Your task to perform on an android device: open chrome privacy settings Image 0: 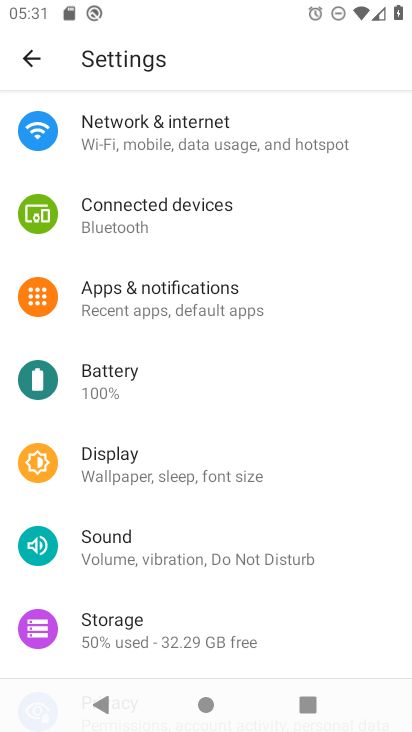
Step 0: press home button
Your task to perform on an android device: open chrome privacy settings Image 1: 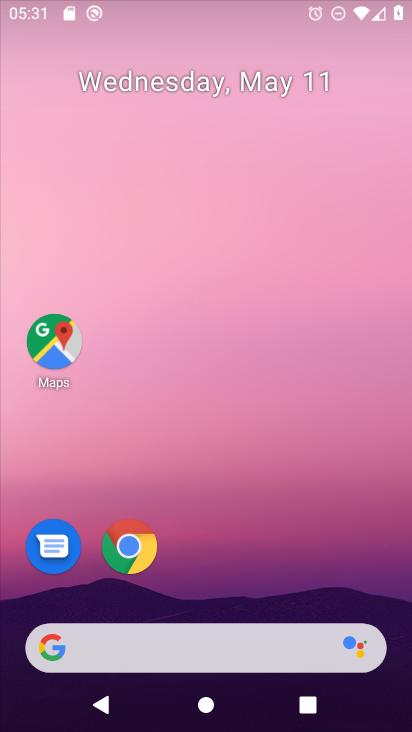
Step 1: drag from (336, 670) to (332, 65)
Your task to perform on an android device: open chrome privacy settings Image 2: 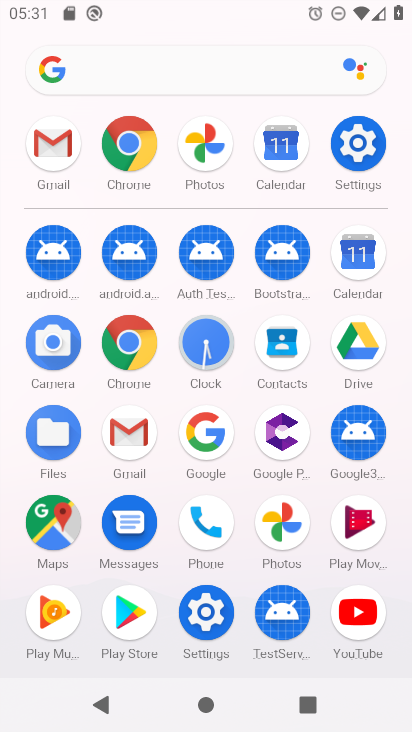
Step 2: click (138, 342)
Your task to perform on an android device: open chrome privacy settings Image 3: 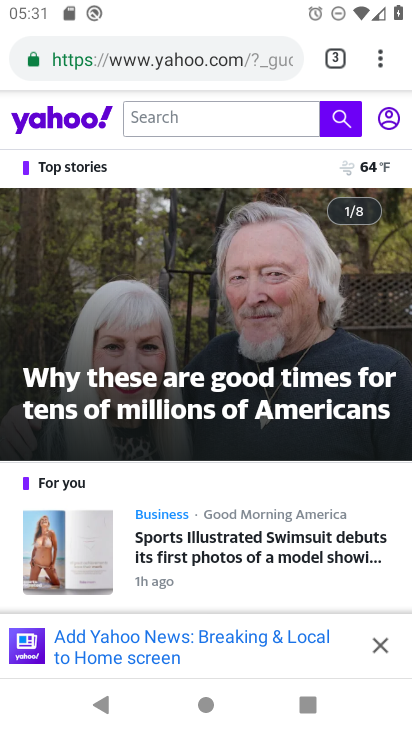
Step 3: drag from (382, 56) to (298, 667)
Your task to perform on an android device: open chrome privacy settings Image 4: 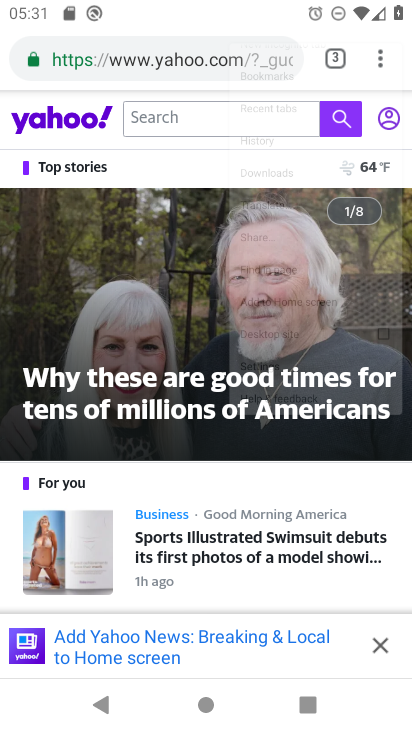
Step 4: click (245, 578)
Your task to perform on an android device: open chrome privacy settings Image 5: 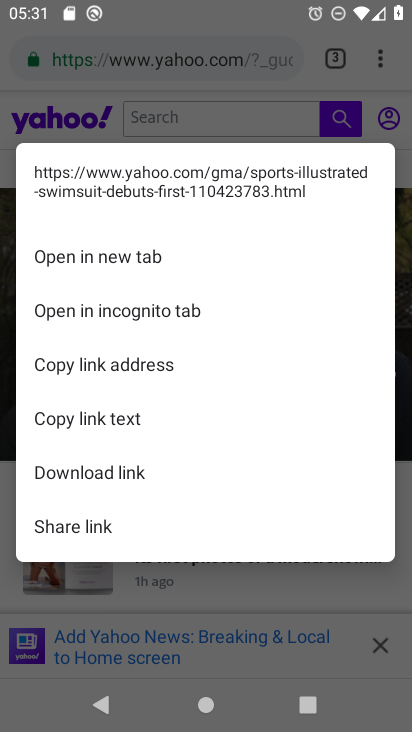
Step 5: press back button
Your task to perform on an android device: open chrome privacy settings Image 6: 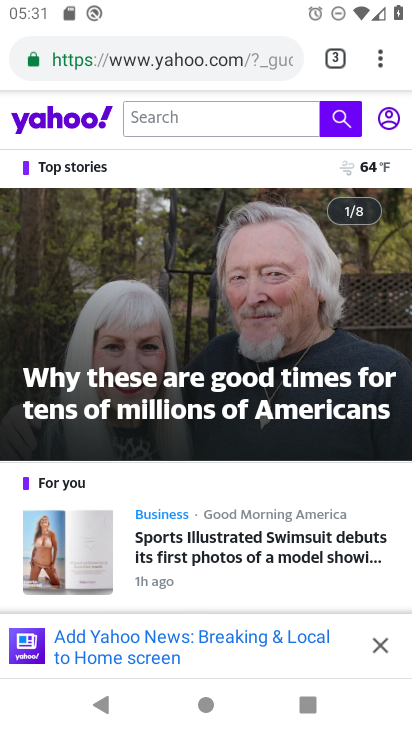
Step 6: drag from (373, 61) to (275, 576)
Your task to perform on an android device: open chrome privacy settings Image 7: 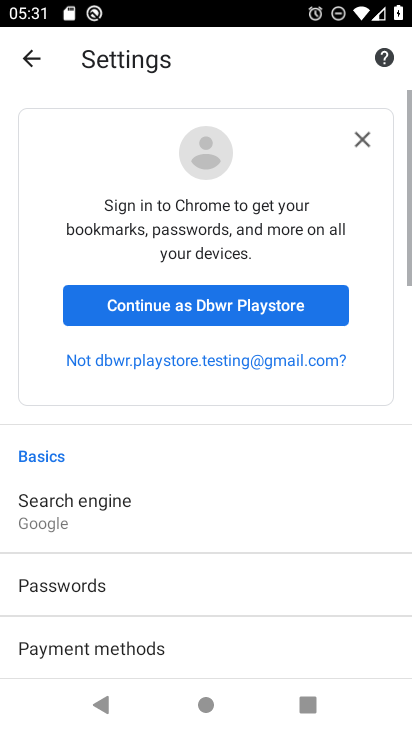
Step 7: drag from (281, 571) to (279, 207)
Your task to perform on an android device: open chrome privacy settings Image 8: 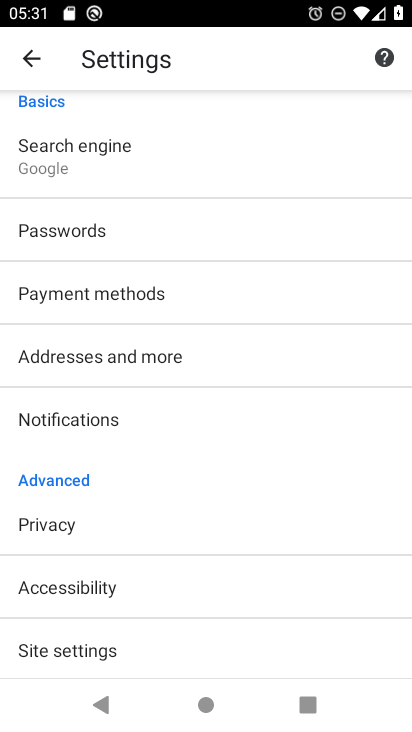
Step 8: click (135, 531)
Your task to perform on an android device: open chrome privacy settings Image 9: 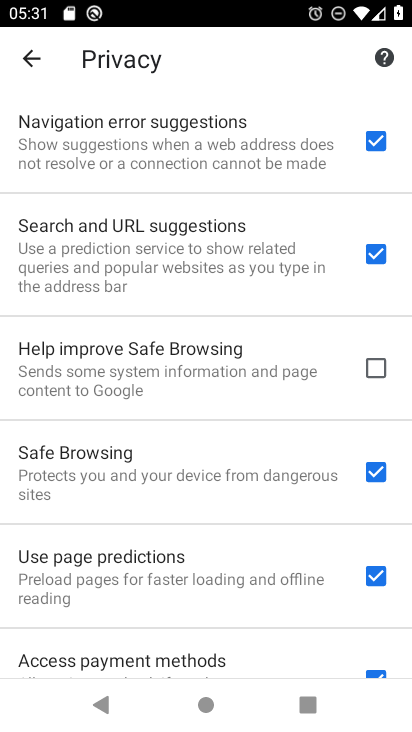
Step 9: task complete